Your task to perform on an android device: add a contact in the contacts app Image 0: 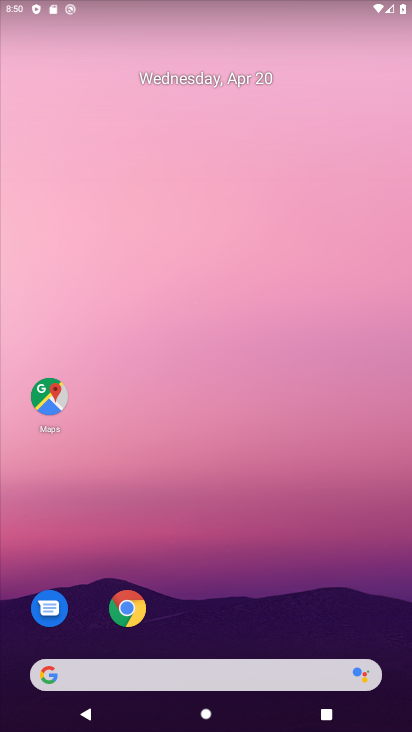
Step 0: drag from (298, 531) to (310, 31)
Your task to perform on an android device: add a contact in the contacts app Image 1: 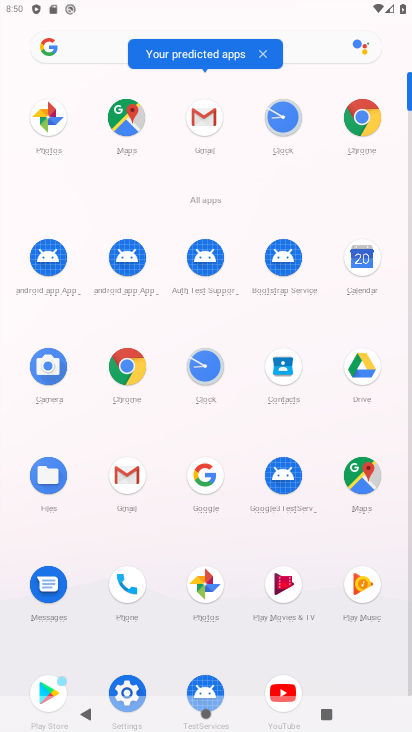
Step 1: click (289, 369)
Your task to perform on an android device: add a contact in the contacts app Image 2: 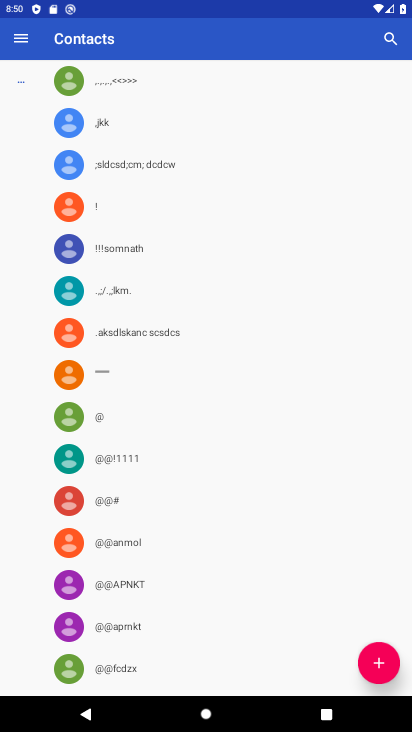
Step 2: click (385, 656)
Your task to perform on an android device: add a contact in the contacts app Image 3: 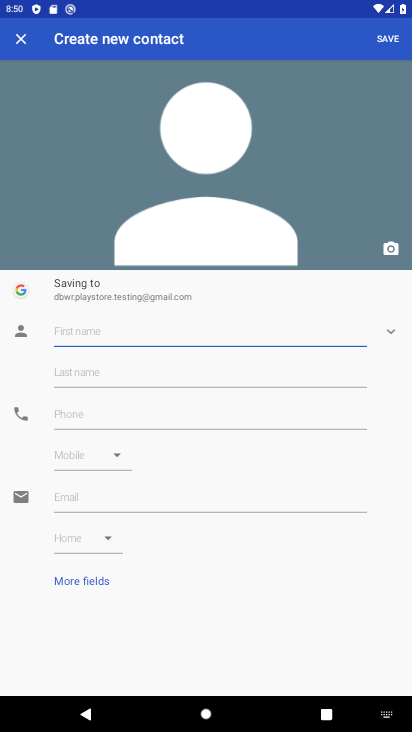
Step 3: click (138, 335)
Your task to perform on an android device: add a contact in the contacts app Image 4: 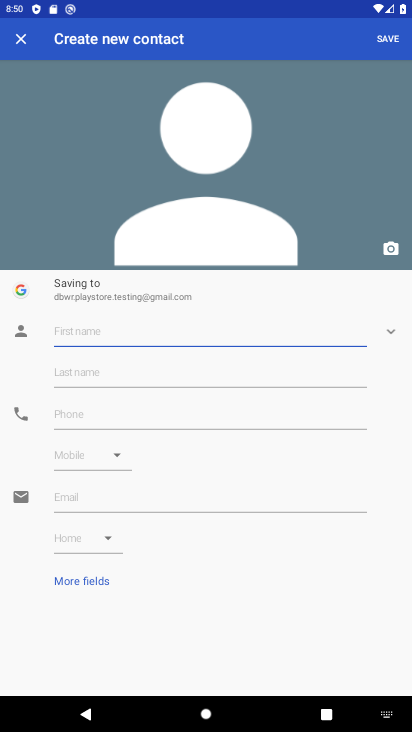
Step 4: type "jhcjkdkj"
Your task to perform on an android device: add a contact in the contacts app Image 5: 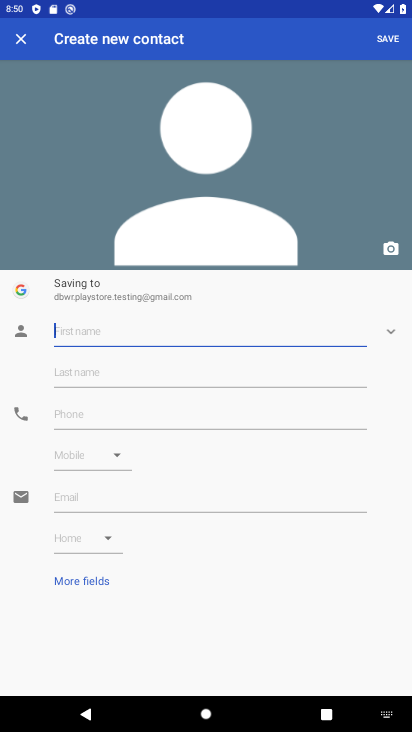
Step 5: click (181, 418)
Your task to perform on an android device: add a contact in the contacts app Image 6: 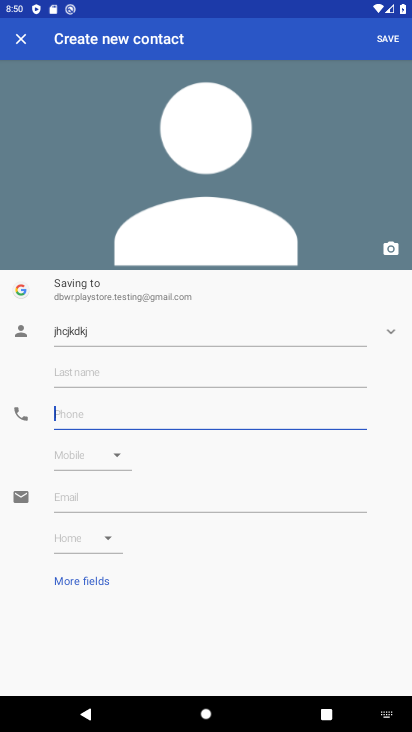
Step 6: type "987398738"
Your task to perform on an android device: add a contact in the contacts app Image 7: 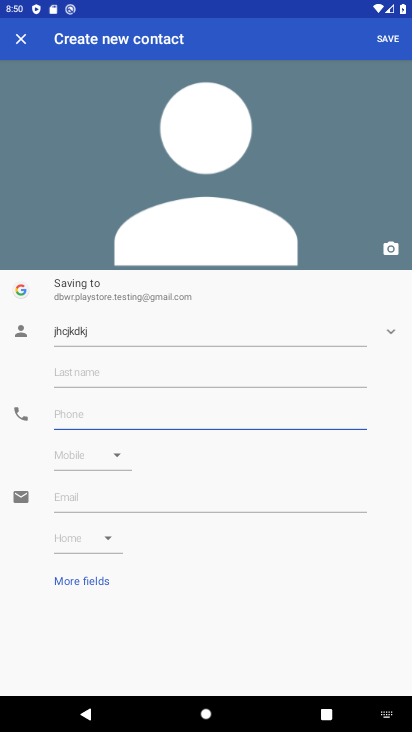
Step 7: click (379, 579)
Your task to perform on an android device: add a contact in the contacts app Image 8: 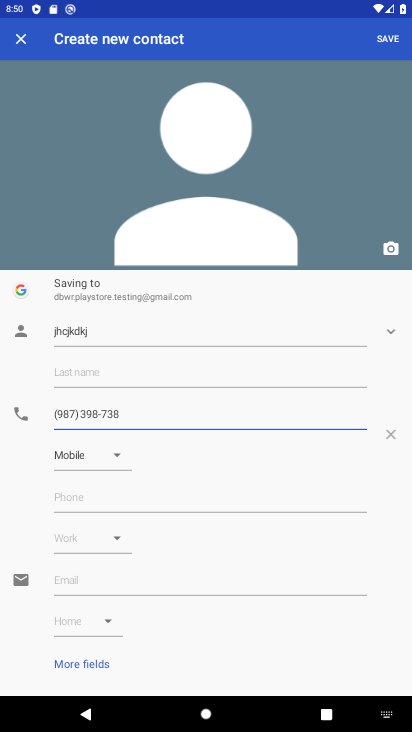
Step 8: task complete